Your task to perform on an android device: check data usage Image 0: 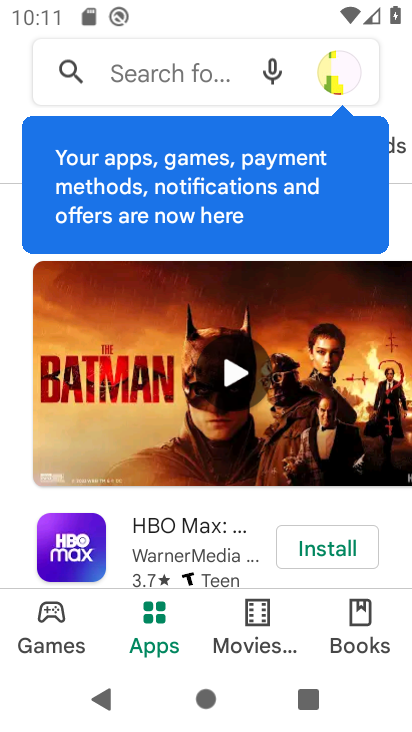
Step 0: press home button
Your task to perform on an android device: check data usage Image 1: 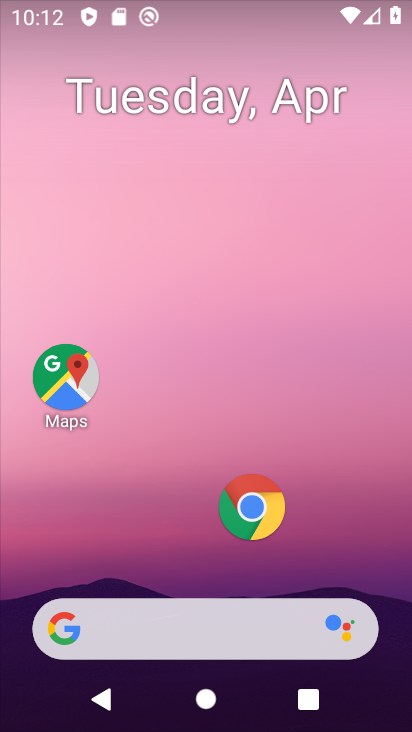
Step 1: drag from (60, 376) to (111, 198)
Your task to perform on an android device: check data usage Image 2: 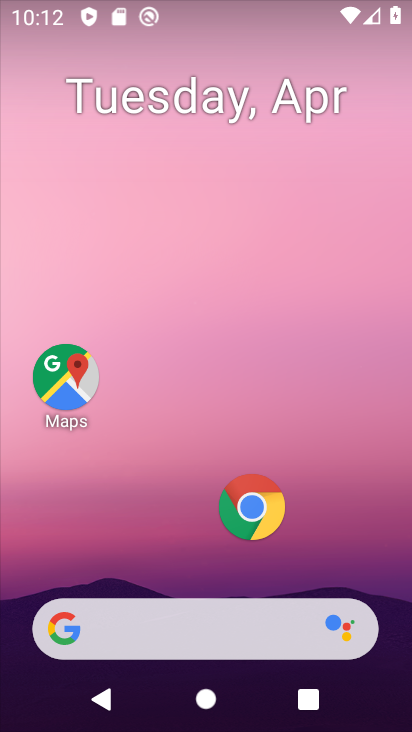
Step 2: drag from (135, 285) to (186, 180)
Your task to perform on an android device: check data usage Image 3: 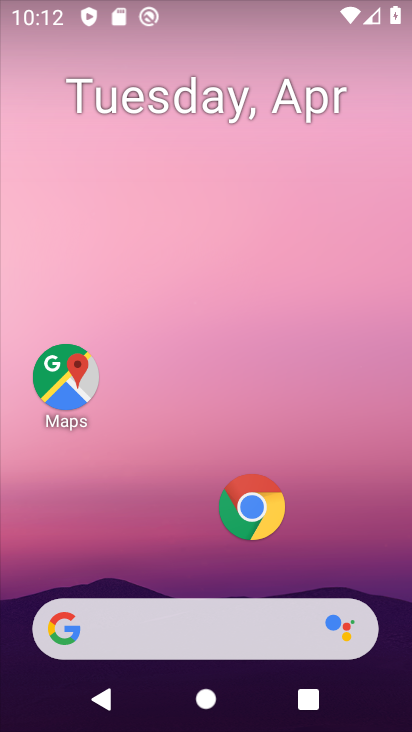
Step 3: drag from (122, 265) to (146, 198)
Your task to perform on an android device: check data usage Image 4: 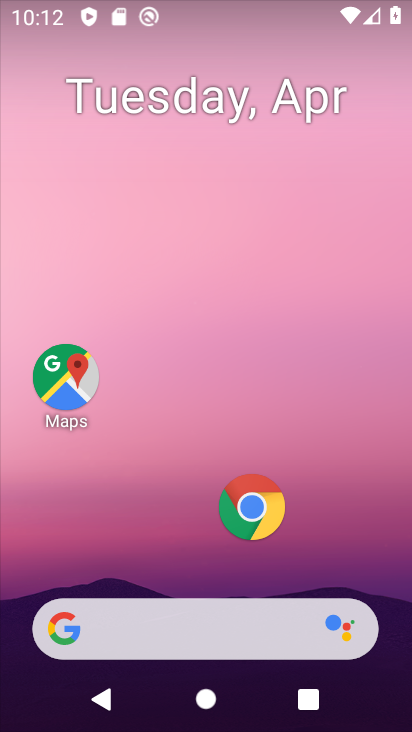
Step 4: drag from (0, 683) to (190, 177)
Your task to perform on an android device: check data usage Image 5: 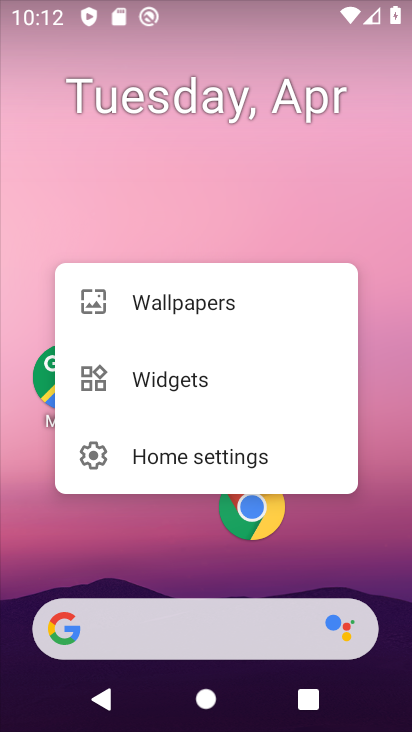
Step 5: click (219, 110)
Your task to perform on an android device: check data usage Image 6: 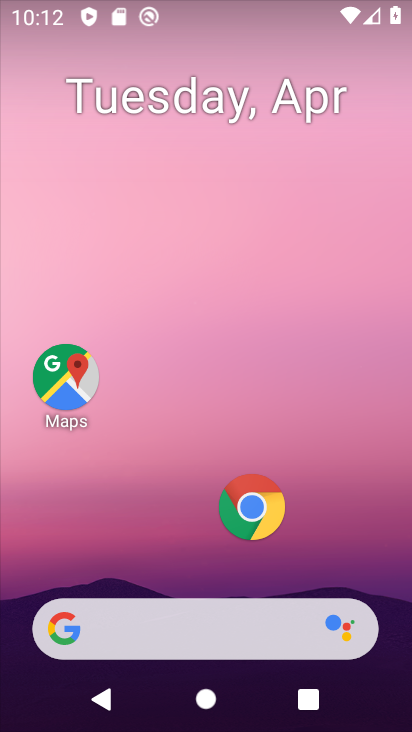
Step 6: drag from (26, 605) to (214, 144)
Your task to perform on an android device: check data usage Image 7: 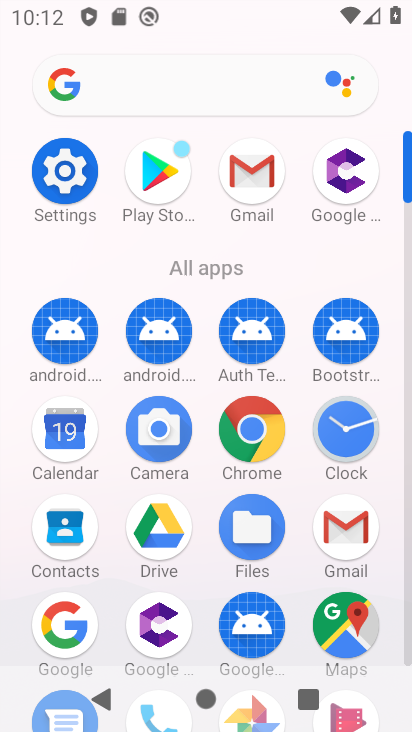
Step 7: click (53, 168)
Your task to perform on an android device: check data usage Image 8: 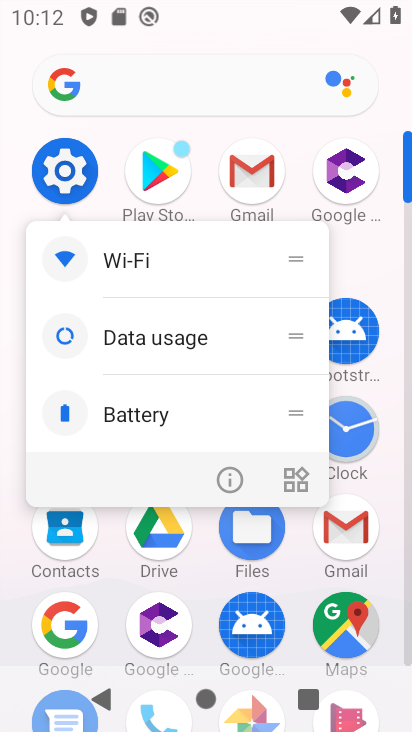
Step 8: click (149, 325)
Your task to perform on an android device: check data usage Image 9: 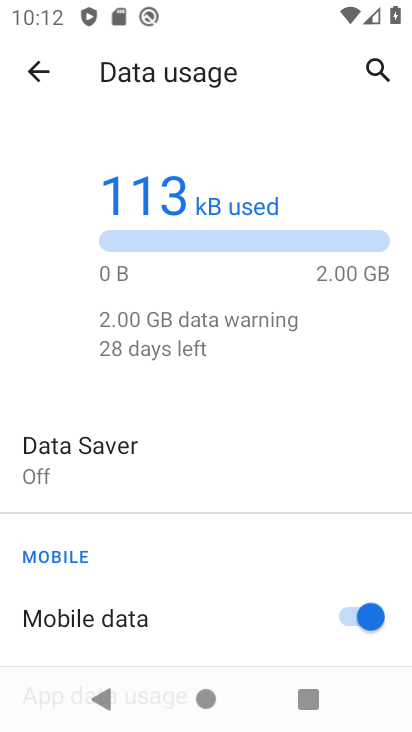
Step 9: task complete